Your task to perform on an android device: toggle airplane mode Image 0: 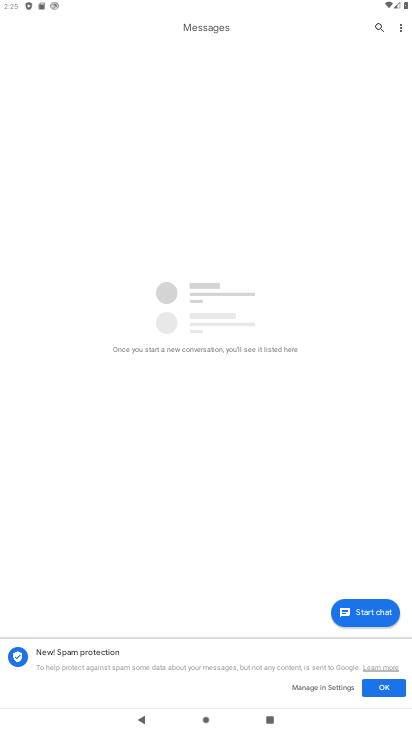
Step 0: drag from (351, 5) to (331, 579)
Your task to perform on an android device: toggle airplane mode Image 1: 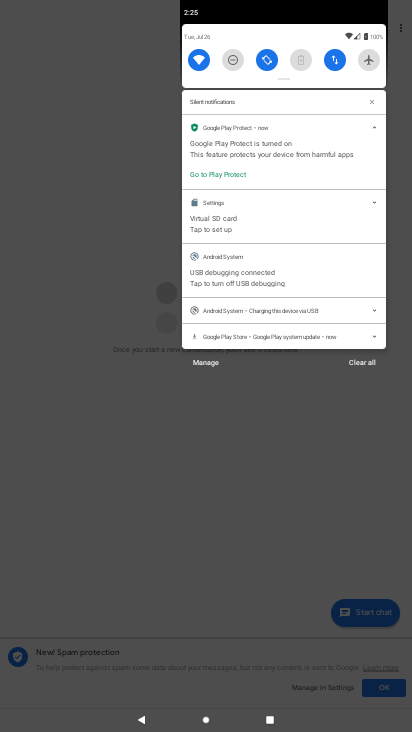
Step 1: drag from (260, 8) to (258, 440)
Your task to perform on an android device: toggle airplane mode Image 2: 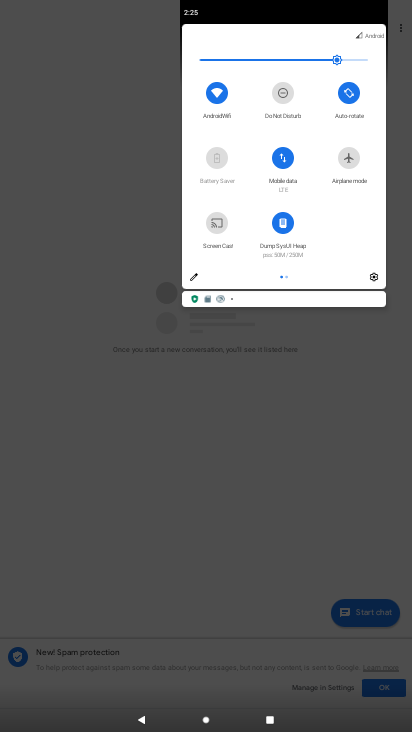
Step 2: click (342, 157)
Your task to perform on an android device: toggle airplane mode Image 3: 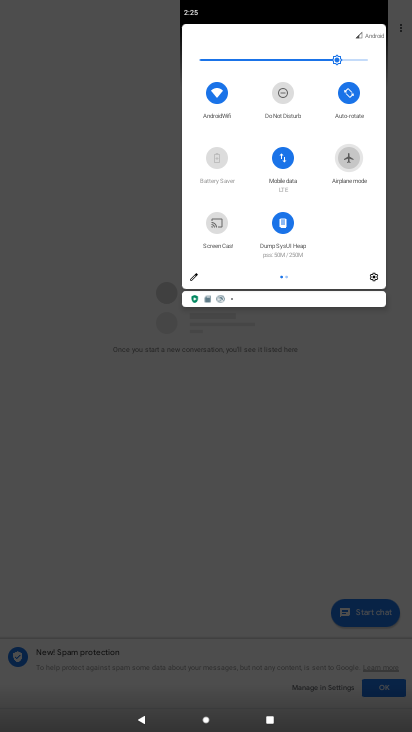
Step 3: click (342, 157)
Your task to perform on an android device: toggle airplane mode Image 4: 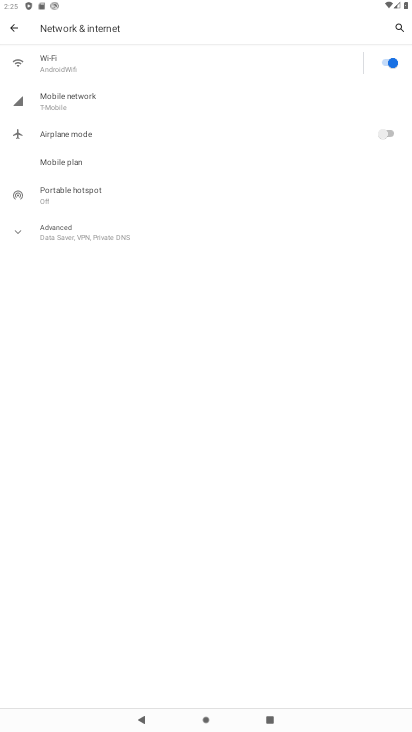
Step 4: click (395, 63)
Your task to perform on an android device: toggle airplane mode Image 5: 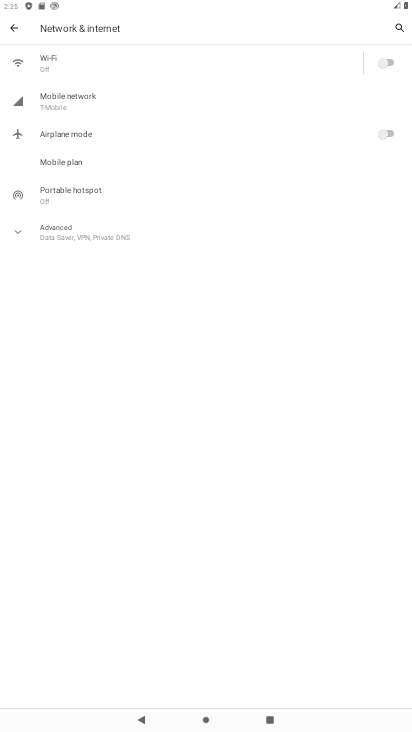
Step 5: click (395, 63)
Your task to perform on an android device: toggle airplane mode Image 6: 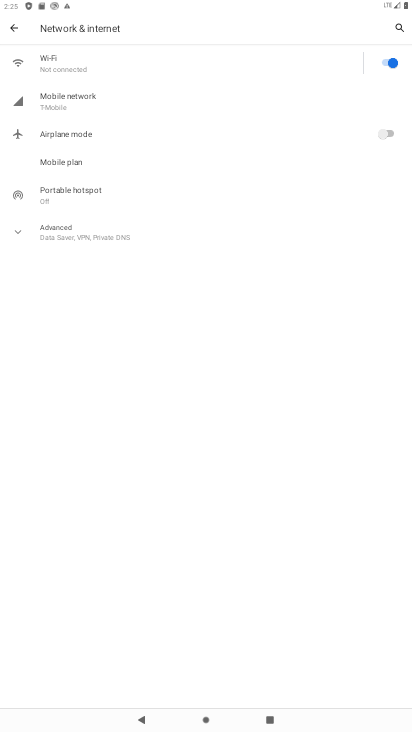
Step 6: task complete